Your task to perform on an android device: see tabs open on other devices in the chrome app Image 0: 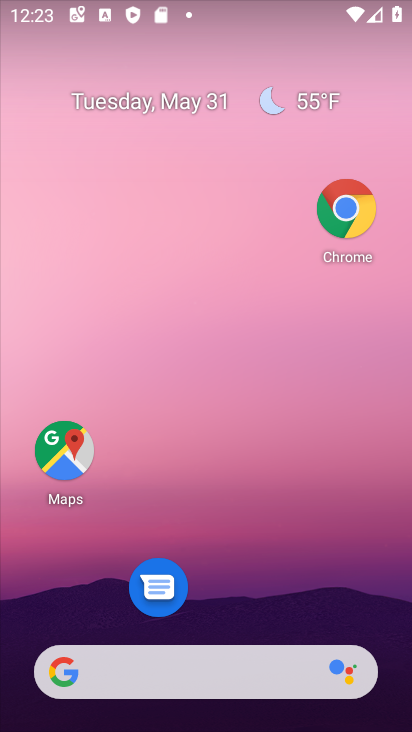
Step 0: click (350, 211)
Your task to perform on an android device: see tabs open on other devices in the chrome app Image 1: 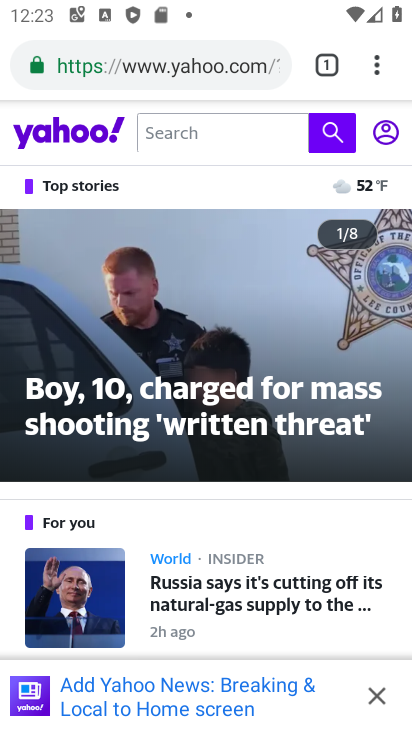
Step 1: click (378, 117)
Your task to perform on an android device: see tabs open on other devices in the chrome app Image 2: 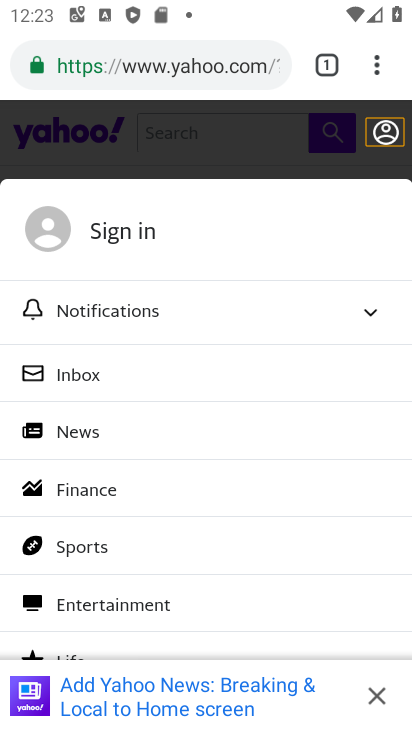
Step 2: click (386, 65)
Your task to perform on an android device: see tabs open on other devices in the chrome app Image 3: 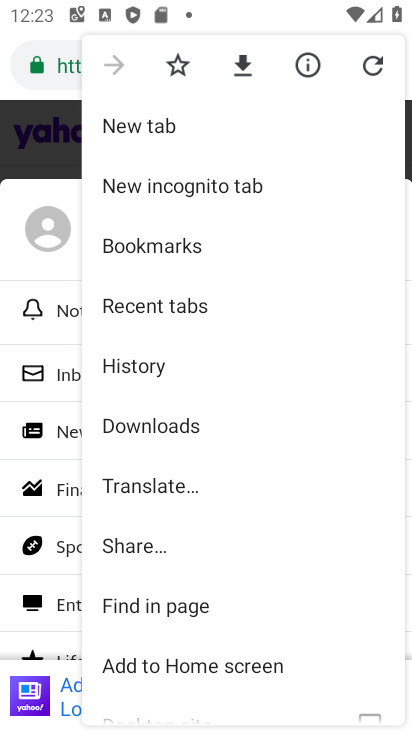
Step 3: click (179, 324)
Your task to perform on an android device: see tabs open on other devices in the chrome app Image 4: 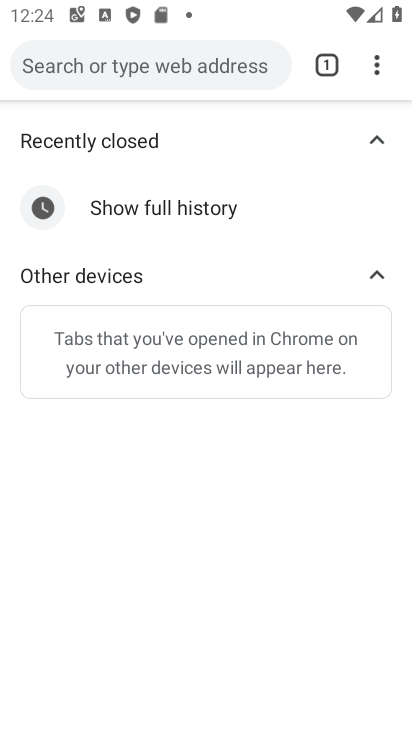
Step 4: task complete